Your task to perform on an android device: turn on sleep mode Image 0: 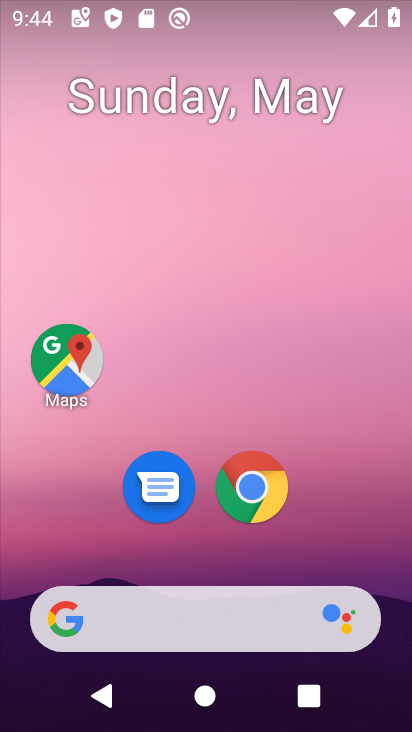
Step 0: drag from (355, 554) to (359, 138)
Your task to perform on an android device: turn on sleep mode Image 1: 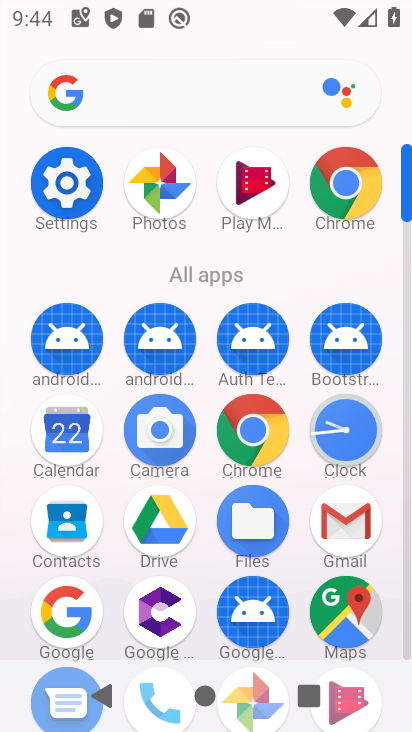
Step 1: click (72, 191)
Your task to perform on an android device: turn on sleep mode Image 2: 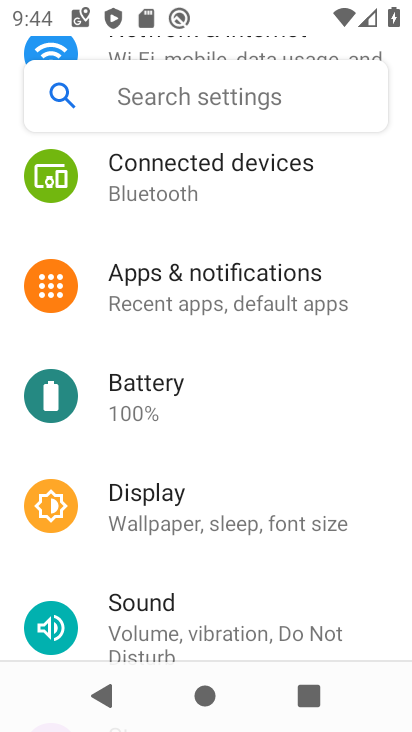
Step 2: drag from (372, 577) to (372, 470)
Your task to perform on an android device: turn on sleep mode Image 3: 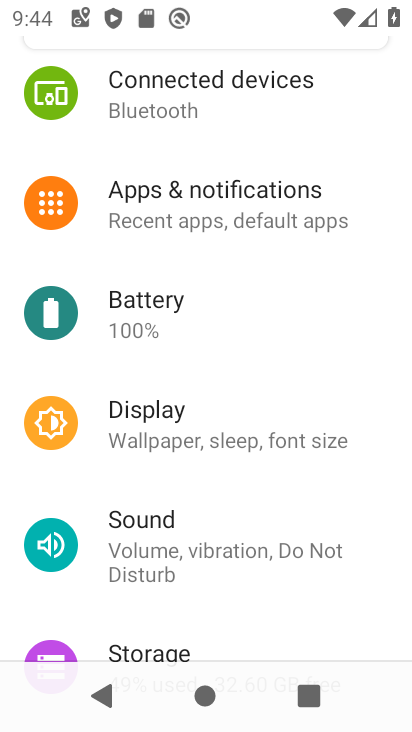
Step 3: drag from (362, 597) to (362, 471)
Your task to perform on an android device: turn on sleep mode Image 4: 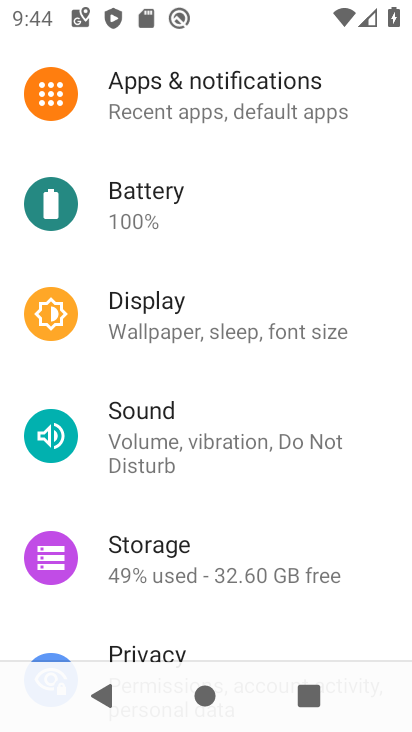
Step 4: drag from (361, 600) to (368, 492)
Your task to perform on an android device: turn on sleep mode Image 5: 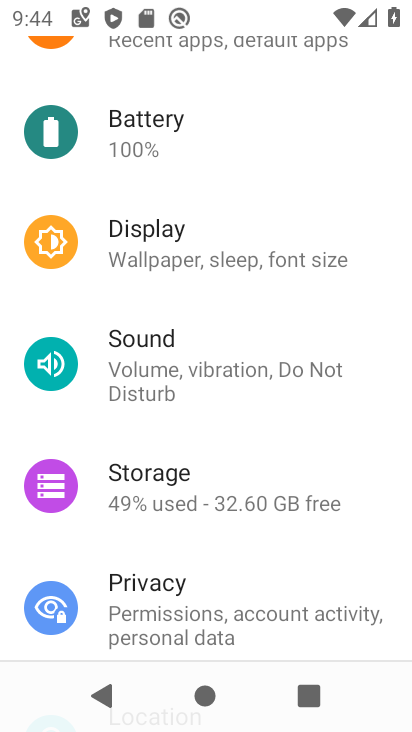
Step 5: drag from (374, 605) to (380, 509)
Your task to perform on an android device: turn on sleep mode Image 6: 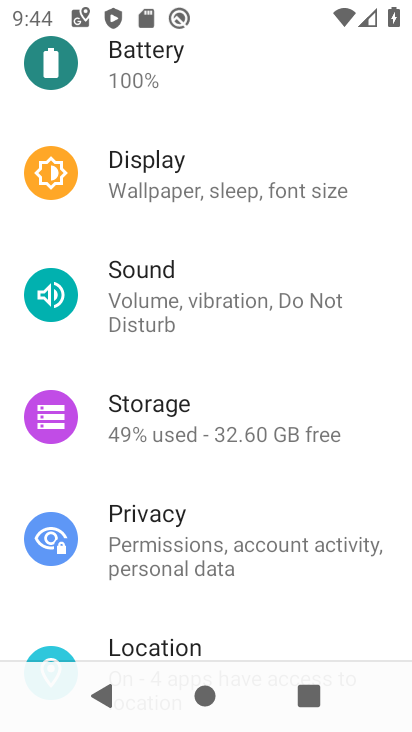
Step 6: drag from (367, 621) to (365, 471)
Your task to perform on an android device: turn on sleep mode Image 7: 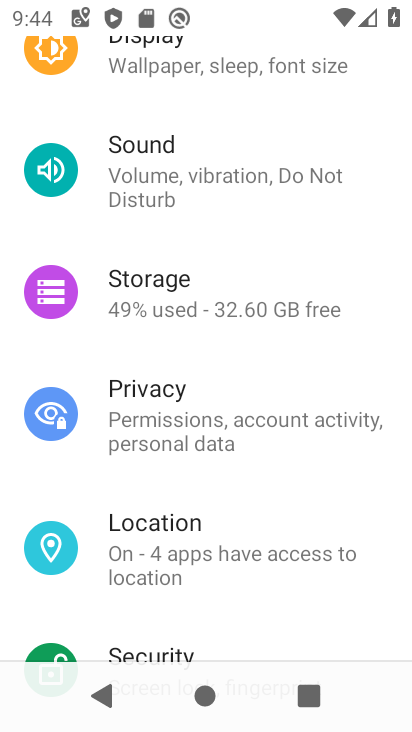
Step 7: drag from (368, 614) to (376, 500)
Your task to perform on an android device: turn on sleep mode Image 8: 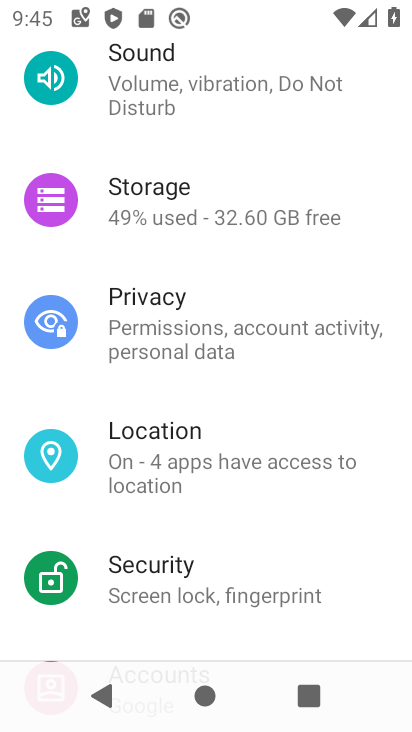
Step 8: drag from (355, 604) to (358, 419)
Your task to perform on an android device: turn on sleep mode Image 9: 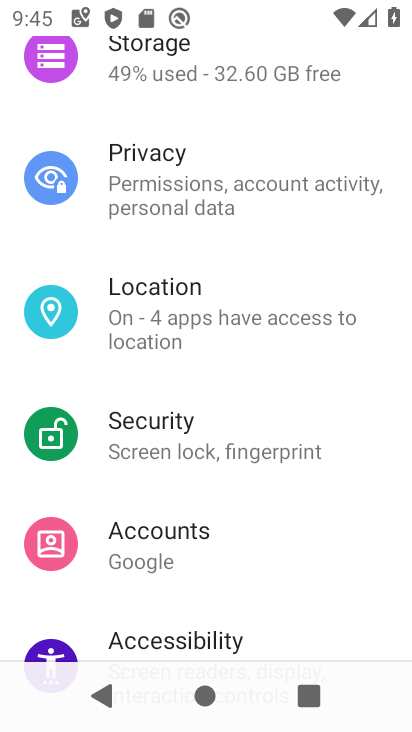
Step 9: drag from (353, 586) to (357, 441)
Your task to perform on an android device: turn on sleep mode Image 10: 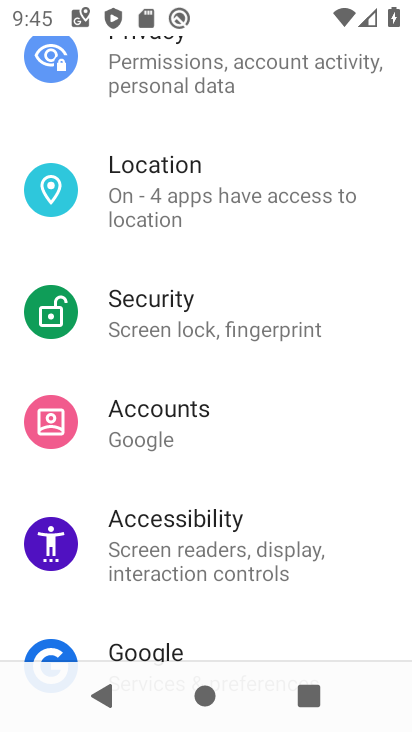
Step 10: drag from (360, 617) to (361, 443)
Your task to perform on an android device: turn on sleep mode Image 11: 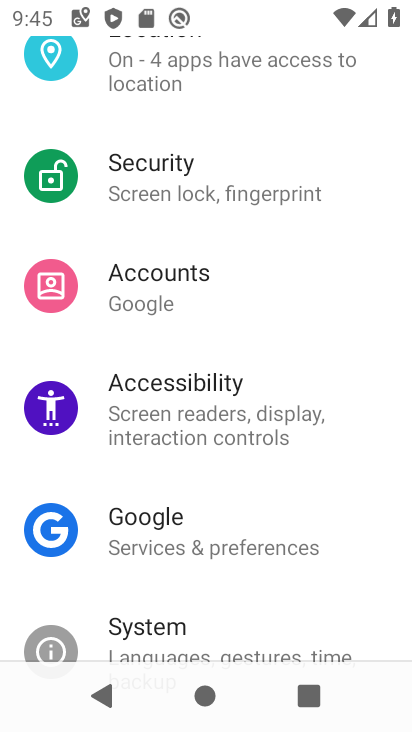
Step 11: drag from (354, 327) to (355, 477)
Your task to perform on an android device: turn on sleep mode Image 12: 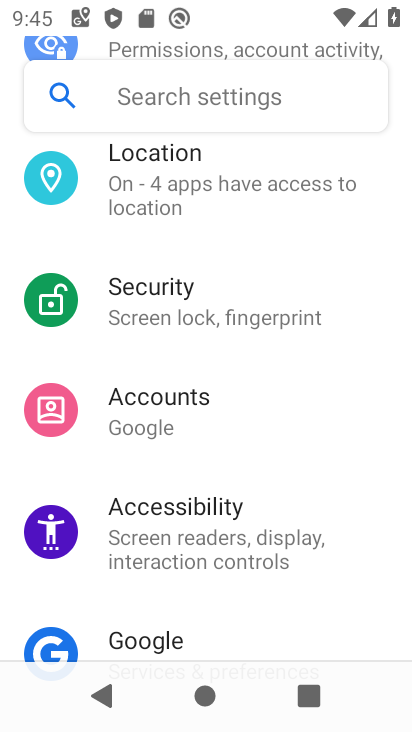
Step 12: drag from (342, 370) to (349, 481)
Your task to perform on an android device: turn on sleep mode Image 13: 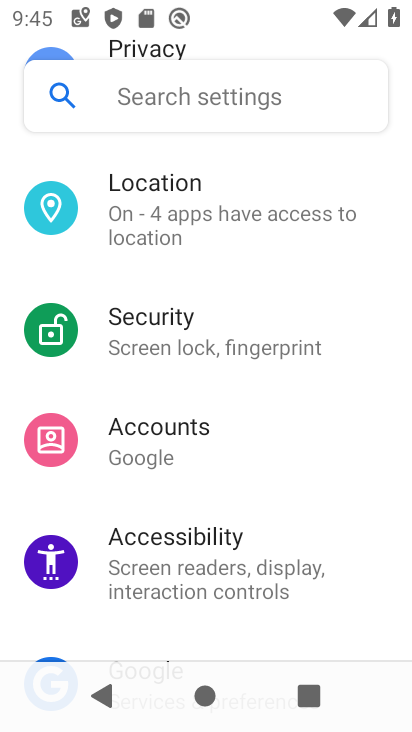
Step 13: drag from (344, 330) to (348, 468)
Your task to perform on an android device: turn on sleep mode Image 14: 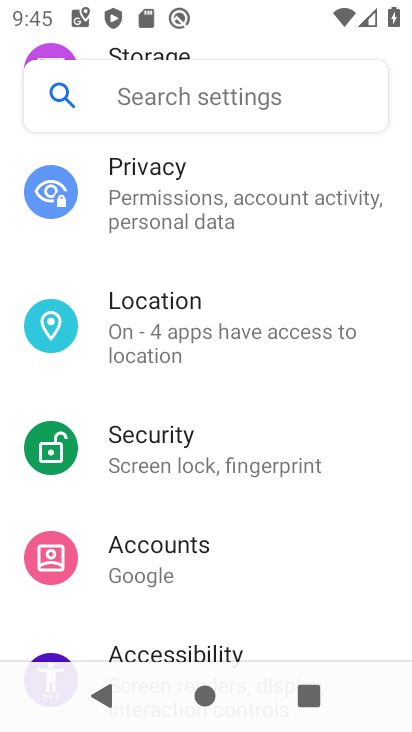
Step 14: drag from (356, 279) to (357, 406)
Your task to perform on an android device: turn on sleep mode Image 15: 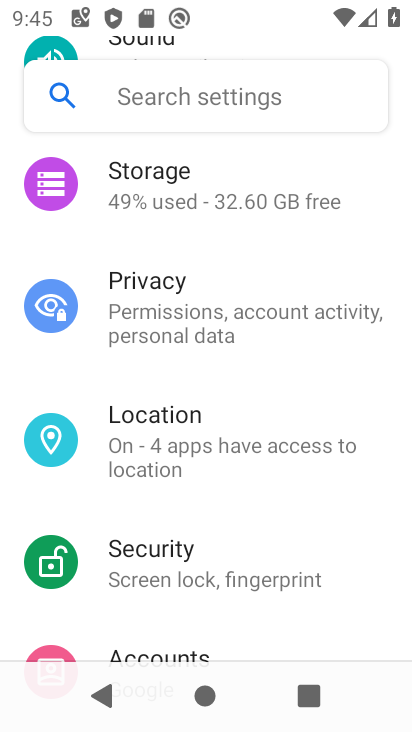
Step 15: drag from (356, 301) to (362, 412)
Your task to perform on an android device: turn on sleep mode Image 16: 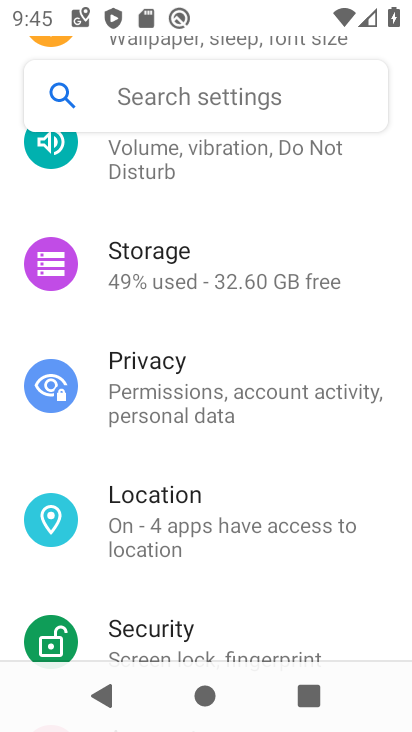
Step 16: drag from (357, 317) to (356, 439)
Your task to perform on an android device: turn on sleep mode Image 17: 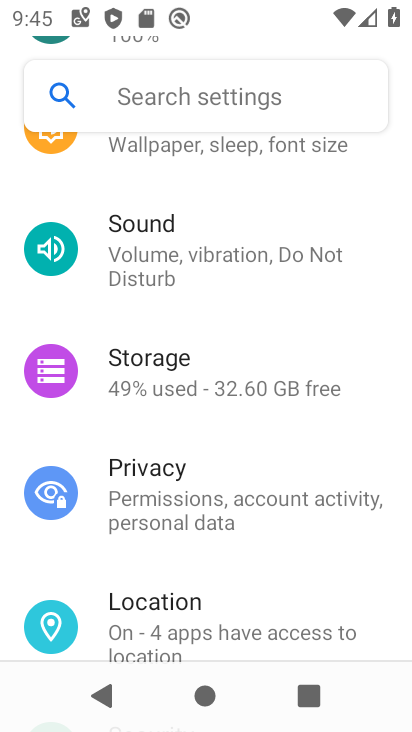
Step 17: drag from (360, 313) to (361, 439)
Your task to perform on an android device: turn on sleep mode Image 18: 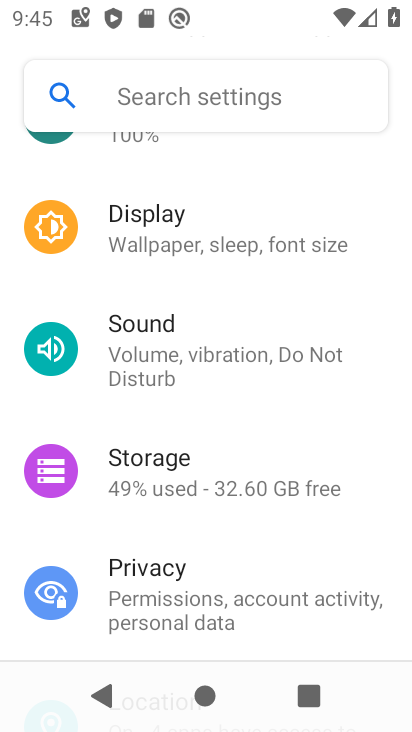
Step 18: drag from (353, 289) to (358, 398)
Your task to perform on an android device: turn on sleep mode Image 19: 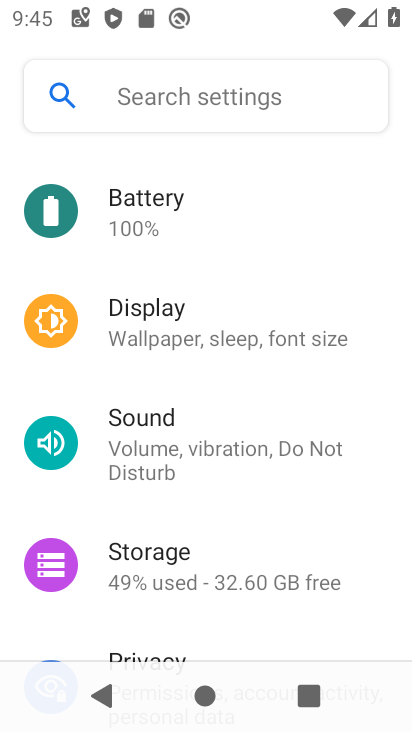
Step 19: click (303, 358)
Your task to perform on an android device: turn on sleep mode Image 20: 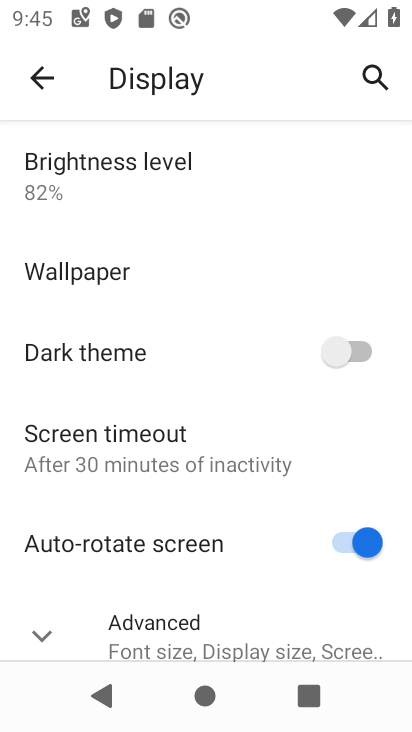
Step 20: drag from (283, 526) to (288, 390)
Your task to perform on an android device: turn on sleep mode Image 21: 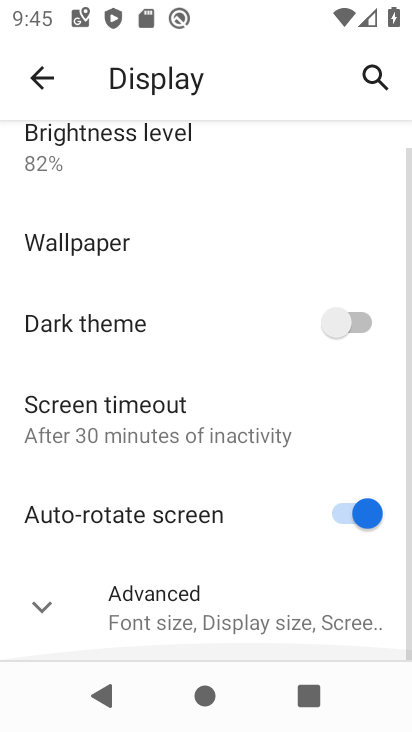
Step 21: click (133, 632)
Your task to perform on an android device: turn on sleep mode Image 22: 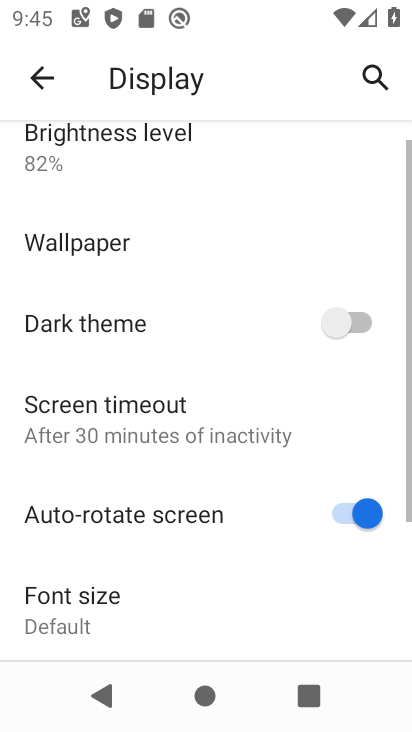
Step 22: task complete